Your task to perform on an android device: Open maps Image 0: 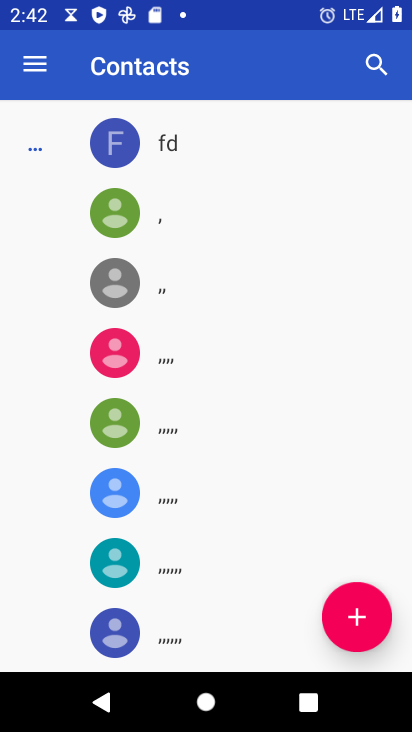
Step 0: press home button
Your task to perform on an android device: Open maps Image 1: 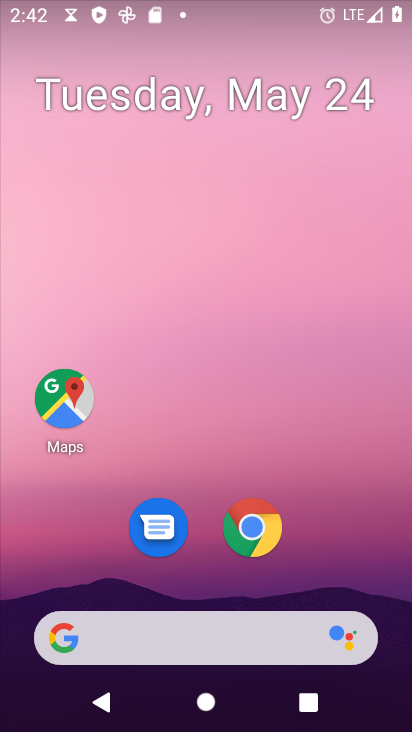
Step 1: click (63, 411)
Your task to perform on an android device: Open maps Image 2: 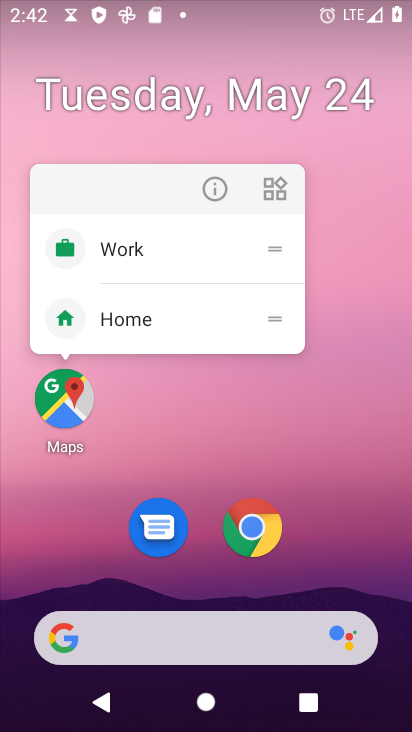
Step 2: click (74, 409)
Your task to perform on an android device: Open maps Image 3: 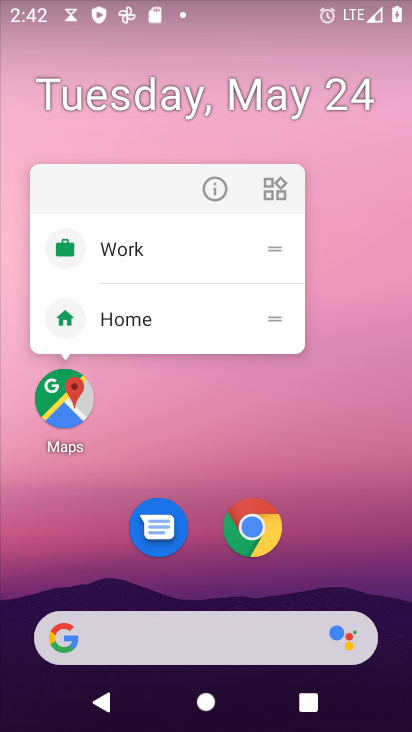
Step 3: click (67, 406)
Your task to perform on an android device: Open maps Image 4: 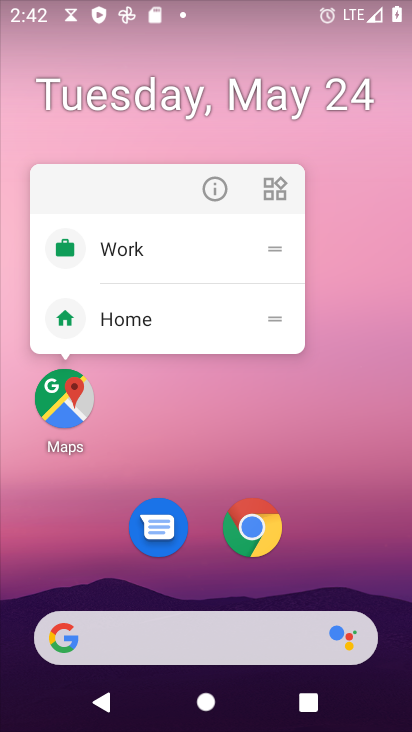
Step 4: click (58, 405)
Your task to perform on an android device: Open maps Image 5: 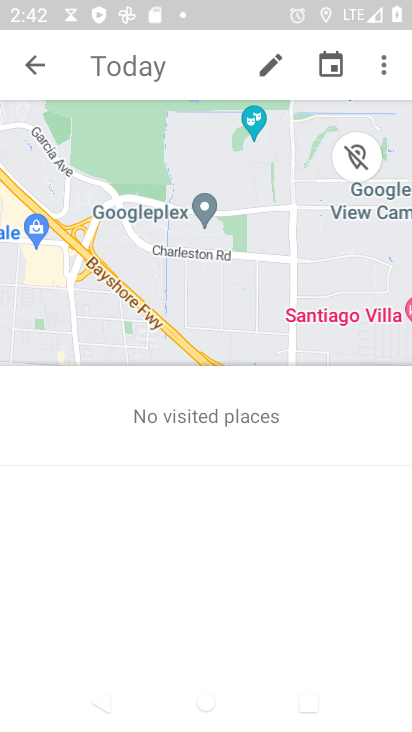
Step 5: click (48, 70)
Your task to perform on an android device: Open maps Image 6: 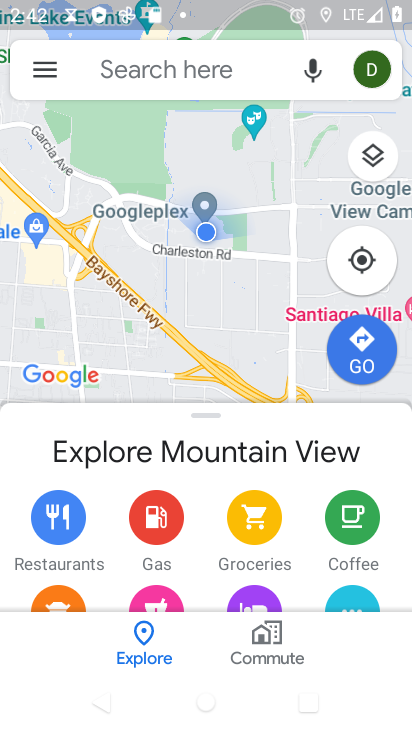
Step 6: task complete